Your task to perform on an android device: Go to Android settings Image 0: 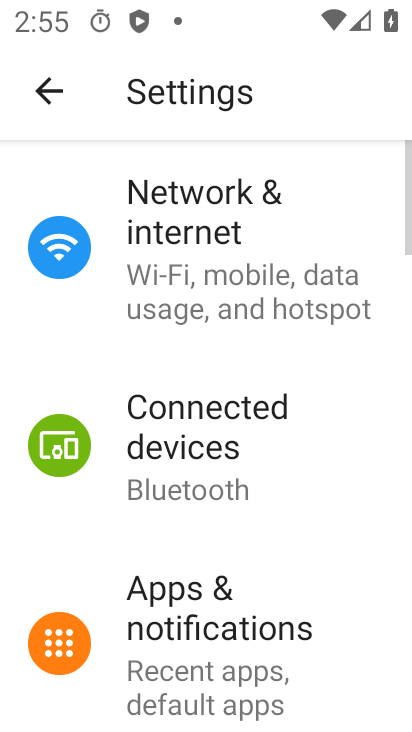
Step 0: press home button
Your task to perform on an android device: Go to Android settings Image 1: 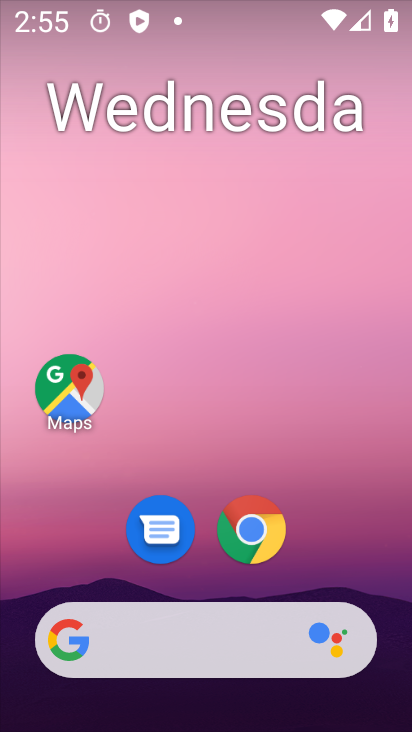
Step 1: drag from (322, 555) to (299, 132)
Your task to perform on an android device: Go to Android settings Image 2: 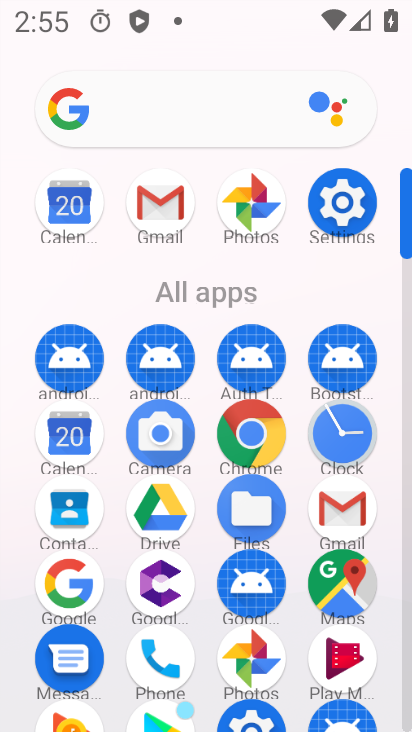
Step 2: click (343, 219)
Your task to perform on an android device: Go to Android settings Image 3: 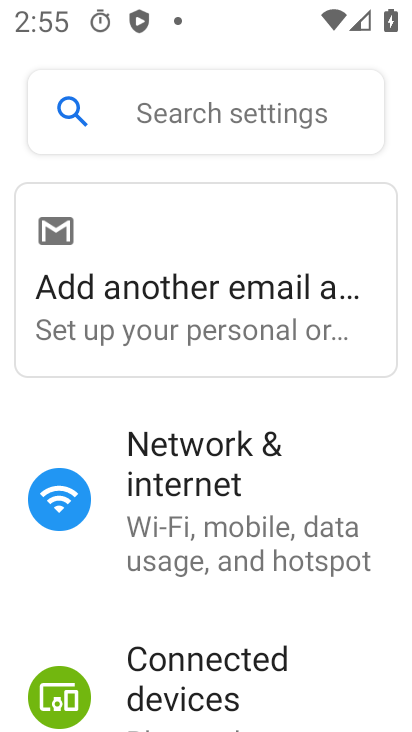
Step 3: drag from (178, 554) to (182, 378)
Your task to perform on an android device: Go to Android settings Image 4: 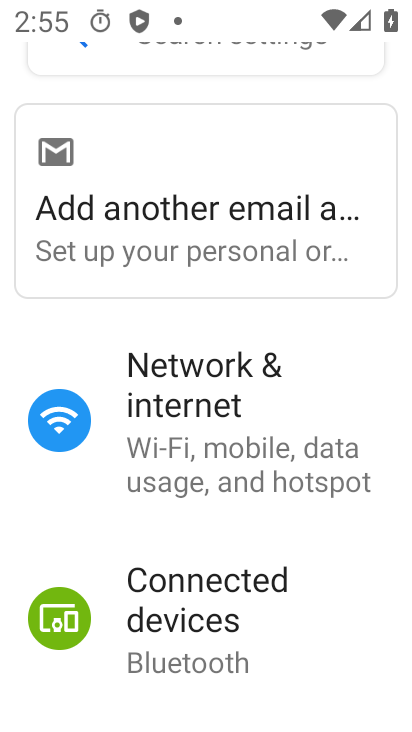
Step 4: drag from (174, 545) to (174, 380)
Your task to perform on an android device: Go to Android settings Image 5: 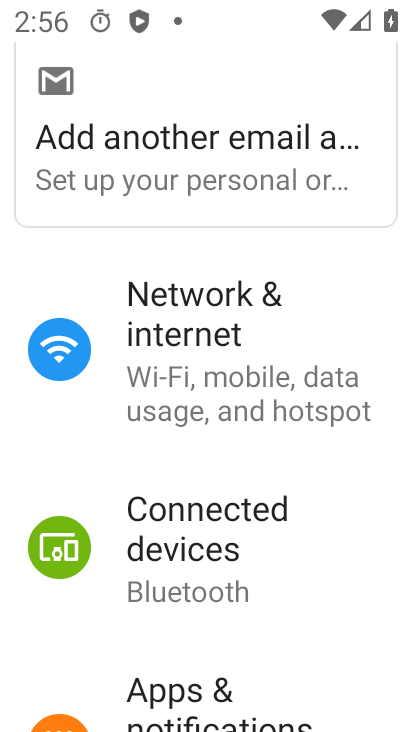
Step 5: drag from (188, 623) to (187, 399)
Your task to perform on an android device: Go to Android settings Image 6: 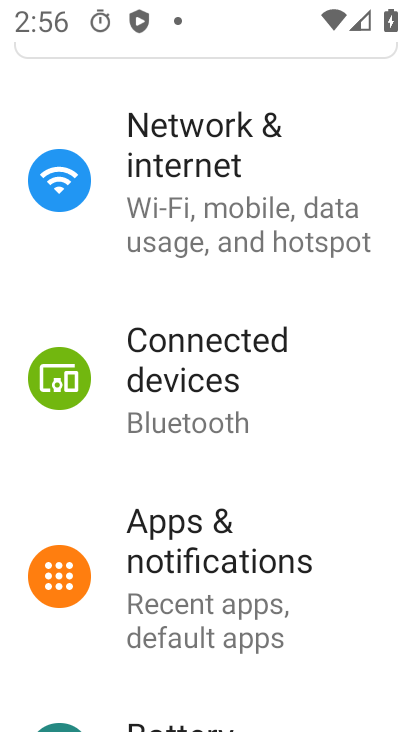
Step 6: drag from (206, 565) to (200, 342)
Your task to perform on an android device: Go to Android settings Image 7: 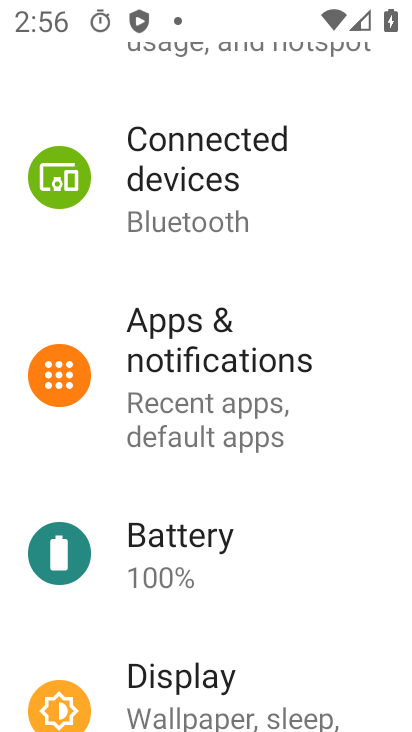
Step 7: drag from (208, 586) to (200, 383)
Your task to perform on an android device: Go to Android settings Image 8: 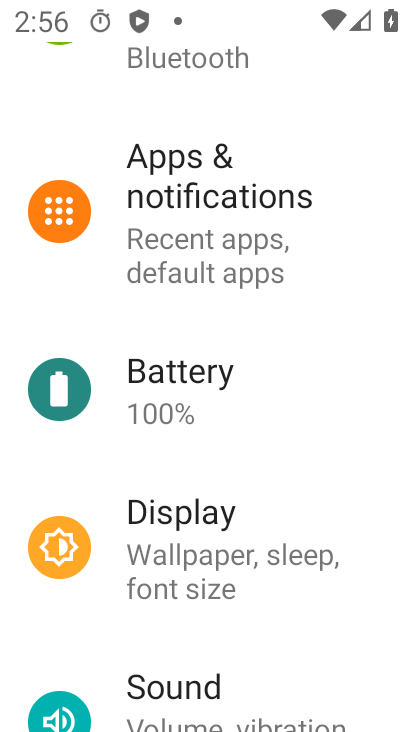
Step 8: drag from (209, 585) to (192, 332)
Your task to perform on an android device: Go to Android settings Image 9: 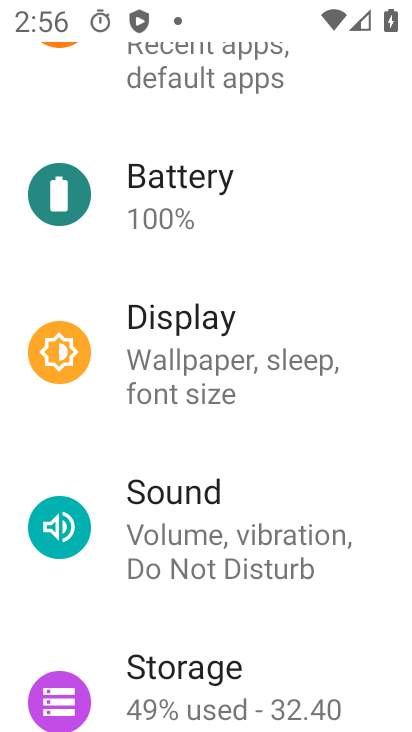
Step 9: drag from (184, 577) to (172, 342)
Your task to perform on an android device: Go to Android settings Image 10: 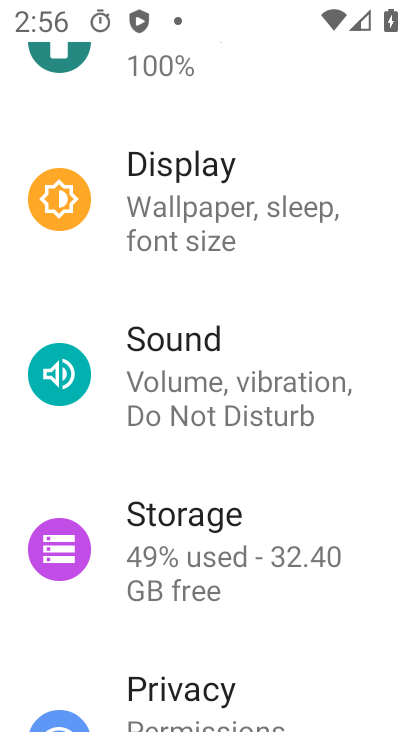
Step 10: drag from (138, 690) to (122, 470)
Your task to perform on an android device: Go to Android settings Image 11: 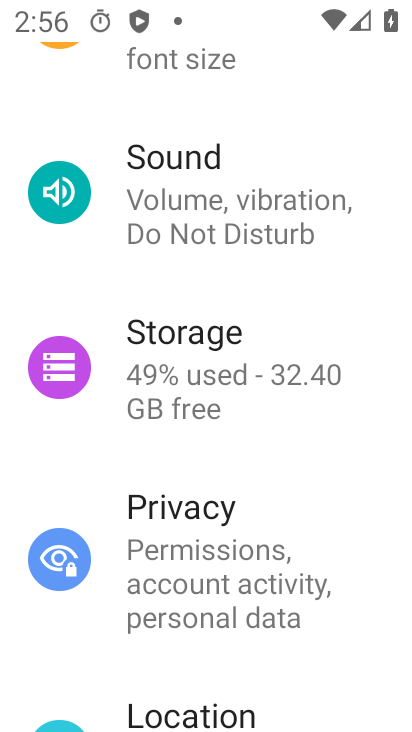
Step 11: drag from (116, 595) to (113, 435)
Your task to perform on an android device: Go to Android settings Image 12: 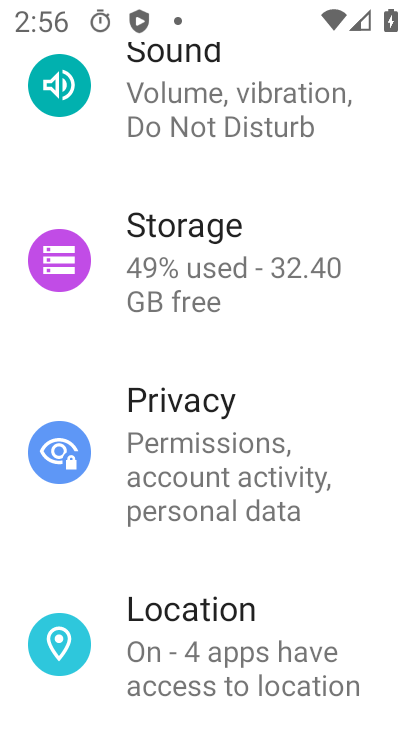
Step 12: drag from (113, 550) to (116, 438)
Your task to perform on an android device: Go to Android settings Image 13: 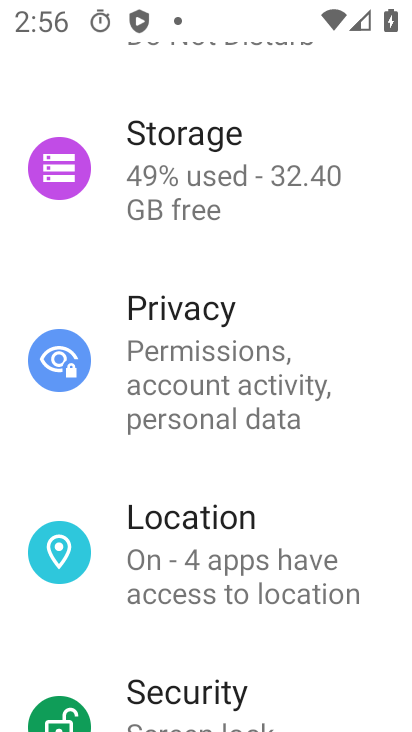
Step 13: drag from (120, 640) to (128, 467)
Your task to perform on an android device: Go to Android settings Image 14: 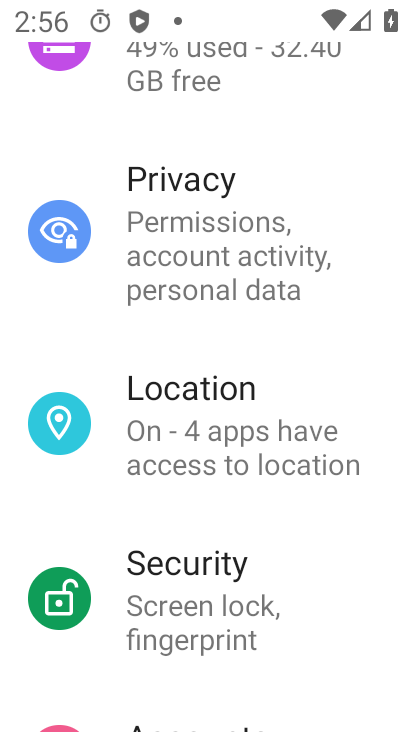
Step 14: drag from (169, 603) to (177, 473)
Your task to perform on an android device: Go to Android settings Image 15: 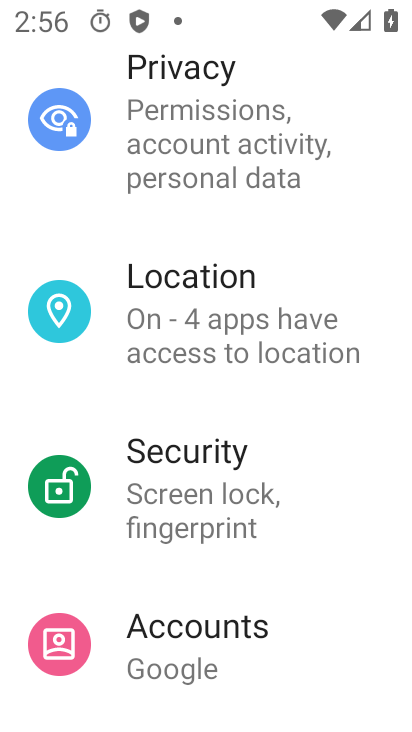
Step 15: drag from (206, 645) to (193, 505)
Your task to perform on an android device: Go to Android settings Image 16: 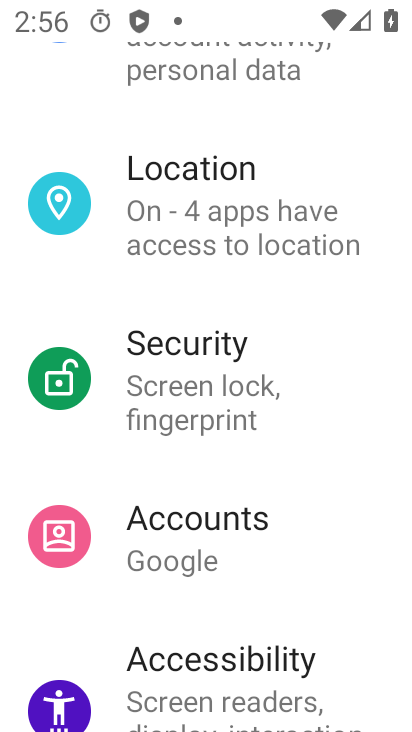
Step 16: drag from (185, 594) to (197, 475)
Your task to perform on an android device: Go to Android settings Image 17: 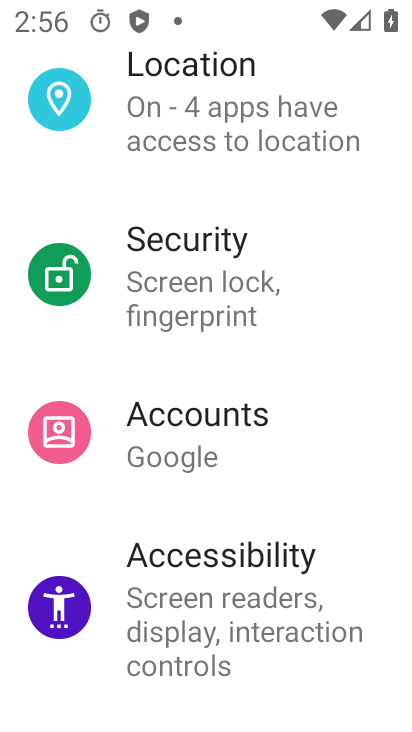
Step 17: drag from (205, 605) to (197, 506)
Your task to perform on an android device: Go to Android settings Image 18: 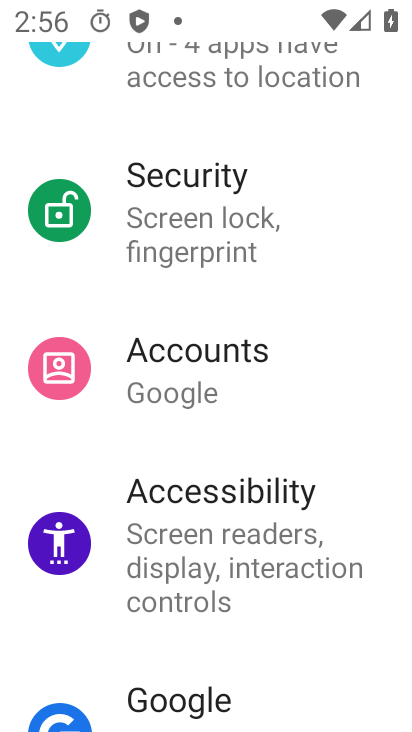
Step 18: drag from (198, 672) to (194, 535)
Your task to perform on an android device: Go to Android settings Image 19: 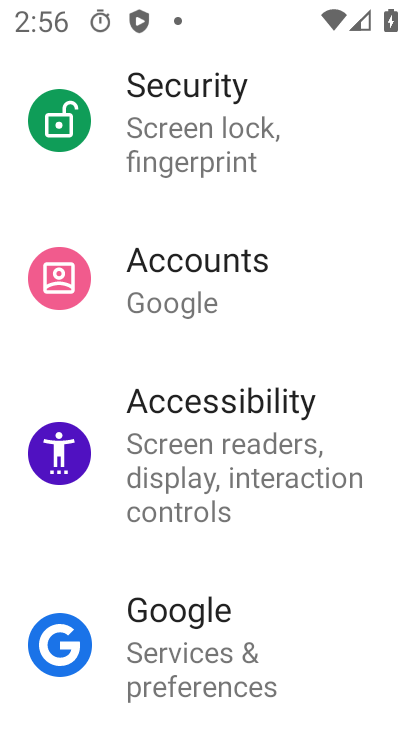
Step 19: drag from (209, 670) to (190, 551)
Your task to perform on an android device: Go to Android settings Image 20: 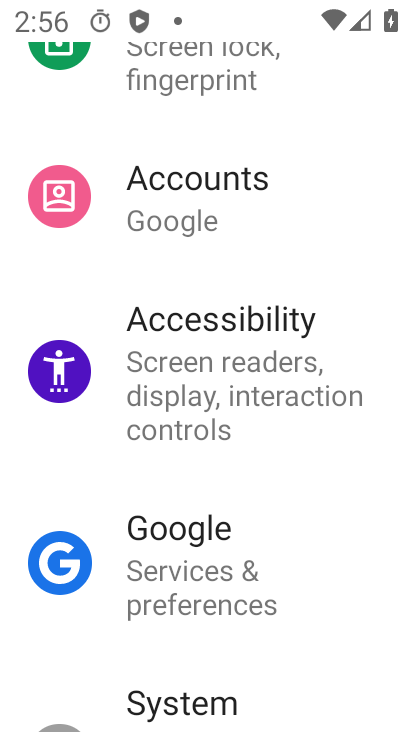
Step 20: drag from (203, 694) to (199, 569)
Your task to perform on an android device: Go to Android settings Image 21: 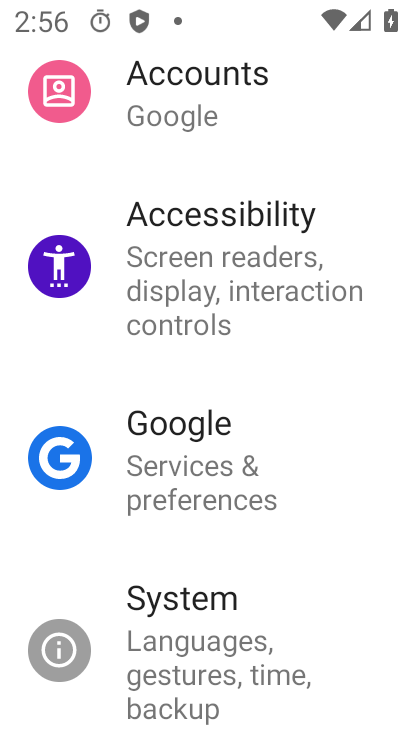
Step 21: click (205, 666)
Your task to perform on an android device: Go to Android settings Image 22: 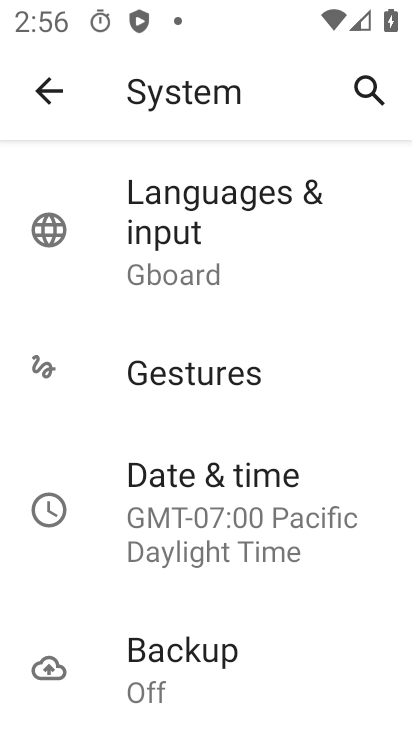
Step 22: task complete